Your task to perform on an android device: open a bookmark in the chrome app Image 0: 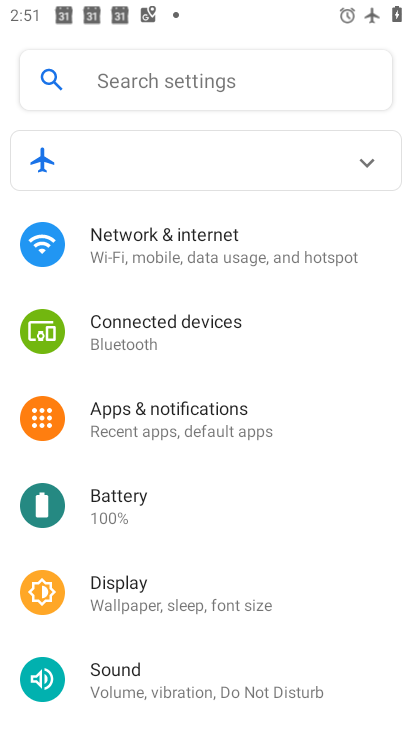
Step 0: press home button
Your task to perform on an android device: open a bookmark in the chrome app Image 1: 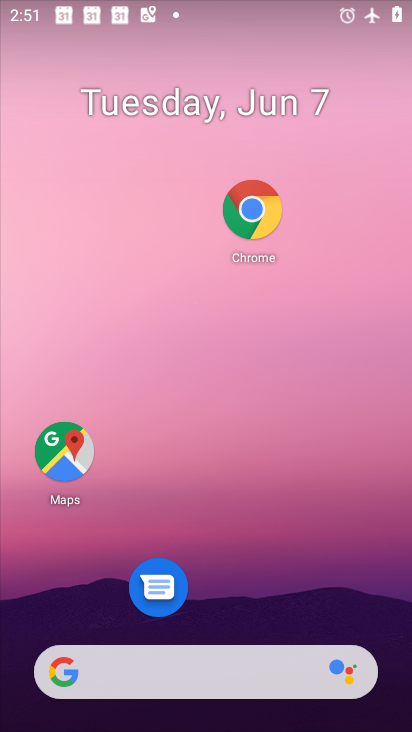
Step 1: click (258, 242)
Your task to perform on an android device: open a bookmark in the chrome app Image 2: 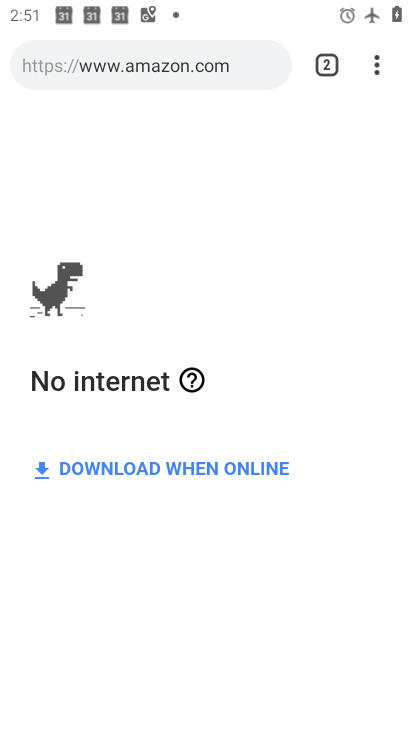
Step 2: click (369, 71)
Your task to perform on an android device: open a bookmark in the chrome app Image 3: 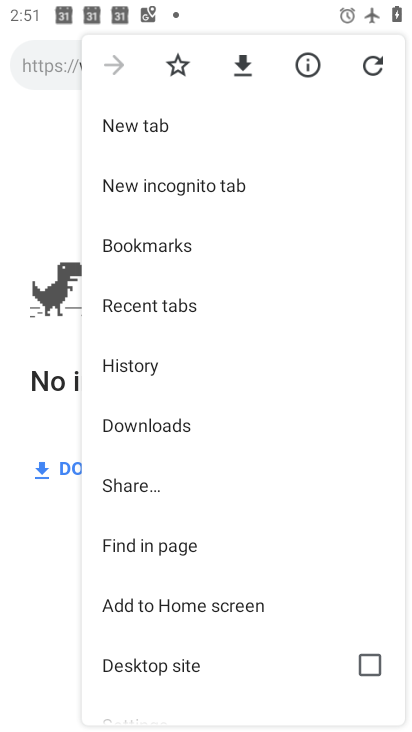
Step 3: click (209, 236)
Your task to perform on an android device: open a bookmark in the chrome app Image 4: 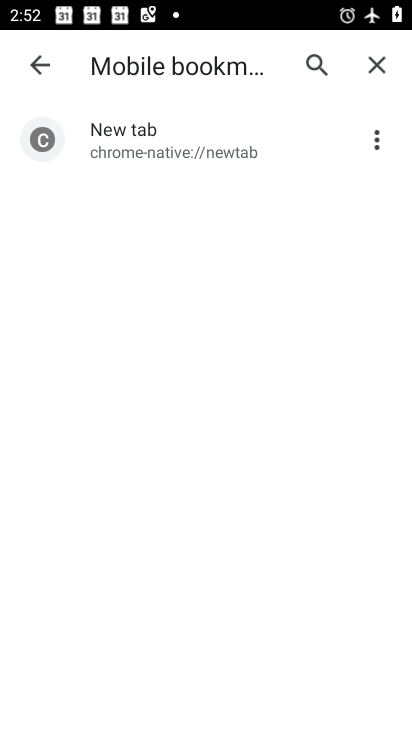
Step 4: click (120, 147)
Your task to perform on an android device: open a bookmark in the chrome app Image 5: 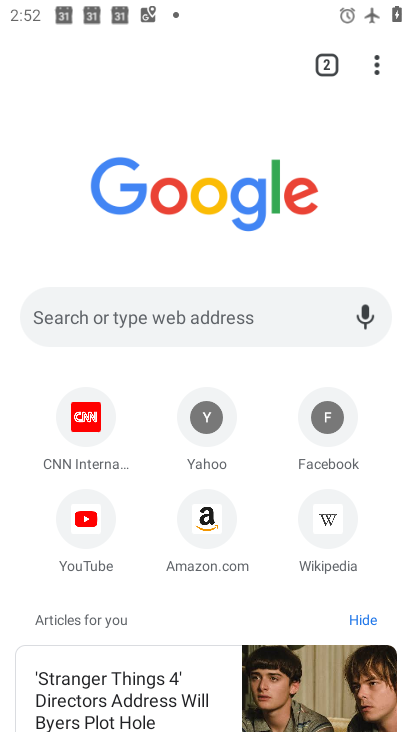
Step 5: task complete